Your task to perform on an android device: change text size in settings app Image 0: 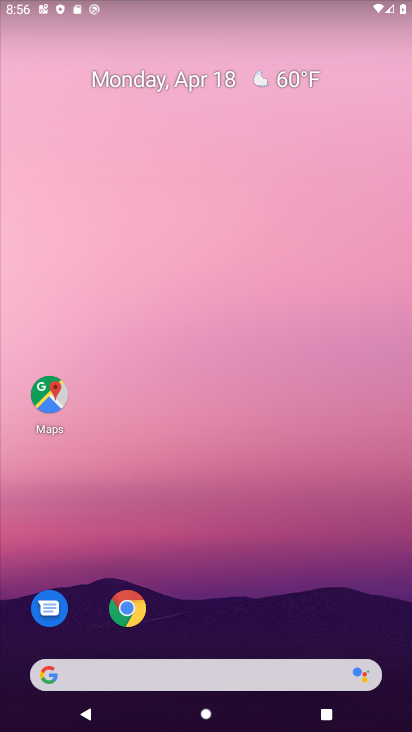
Step 0: click (283, 178)
Your task to perform on an android device: change text size in settings app Image 1: 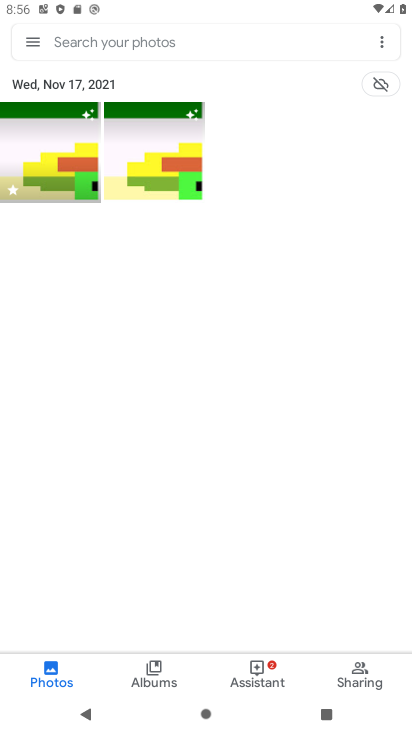
Step 1: press home button
Your task to perform on an android device: change text size in settings app Image 2: 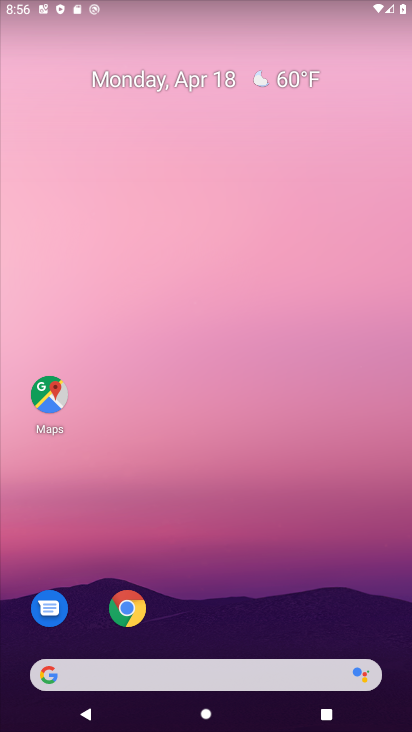
Step 2: drag from (215, 598) to (290, 154)
Your task to perform on an android device: change text size in settings app Image 3: 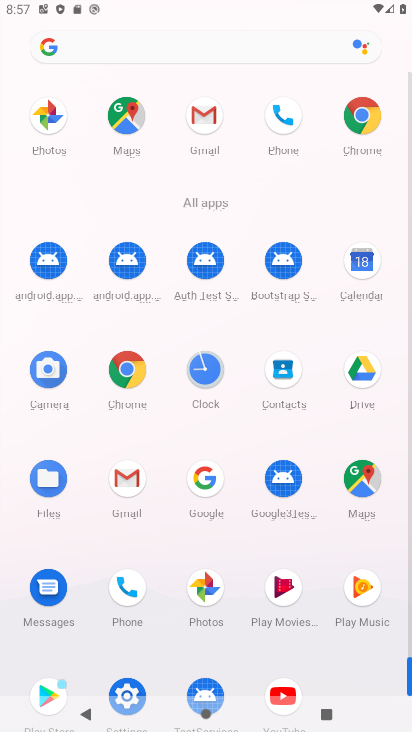
Step 3: click (124, 678)
Your task to perform on an android device: change text size in settings app Image 4: 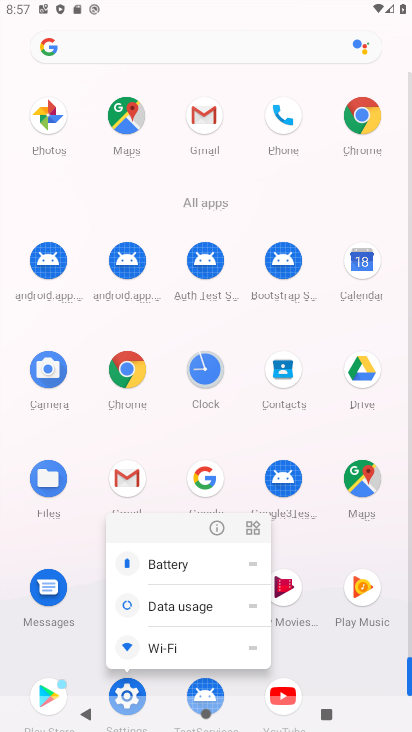
Step 4: click (217, 517)
Your task to perform on an android device: change text size in settings app Image 5: 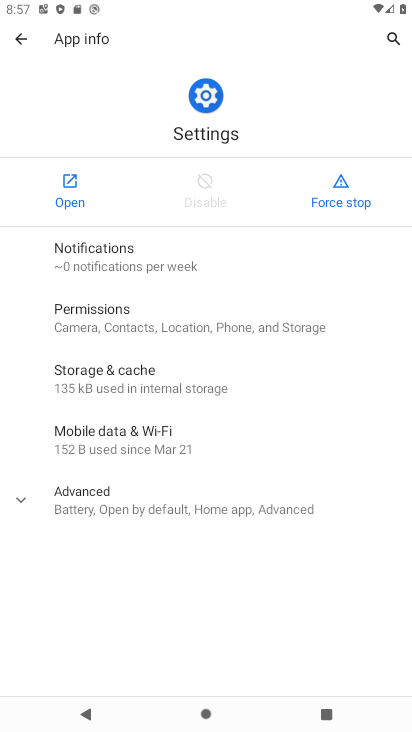
Step 5: click (52, 182)
Your task to perform on an android device: change text size in settings app Image 6: 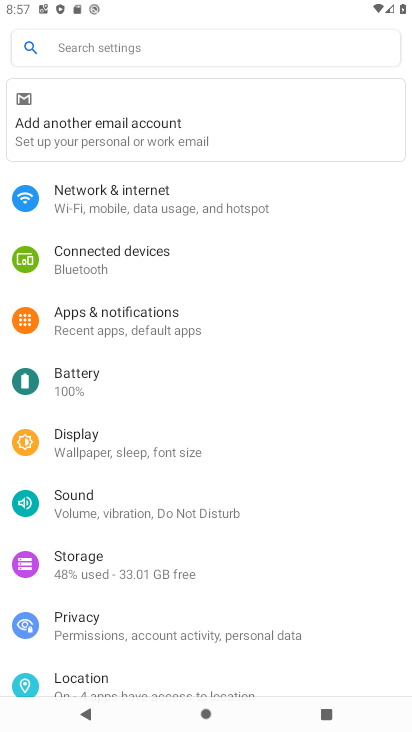
Step 6: click (107, 439)
Your task to perform on an android device: change text size in settings app Image 7: 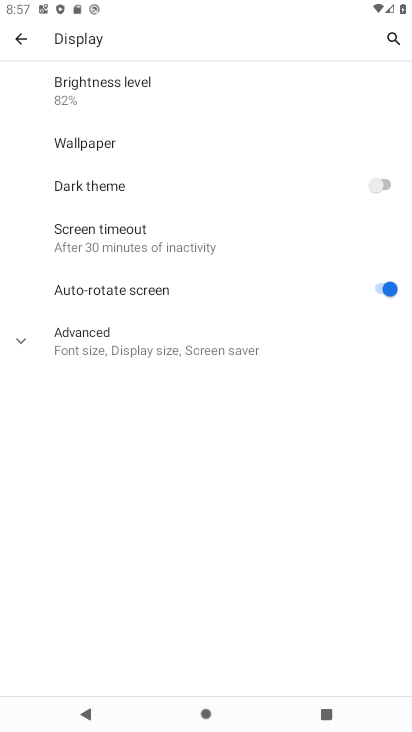
Step 7: click (158, 342)
Your task to perform on an android device: change text size in settings app Image 8: 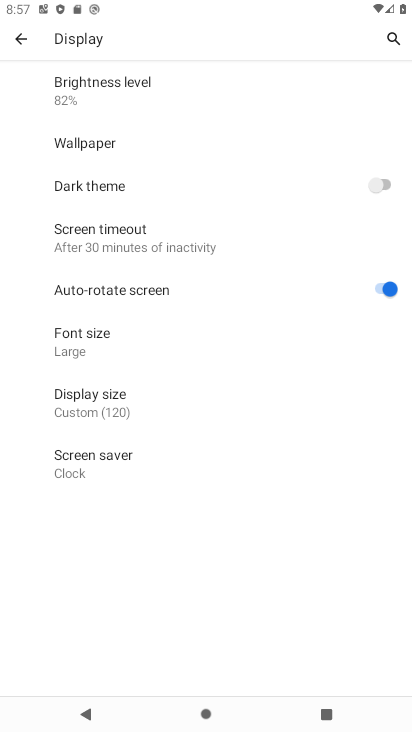
Step 8: click (136, 335)
Your task to perform on an android device: change text size in settings app Image 9: 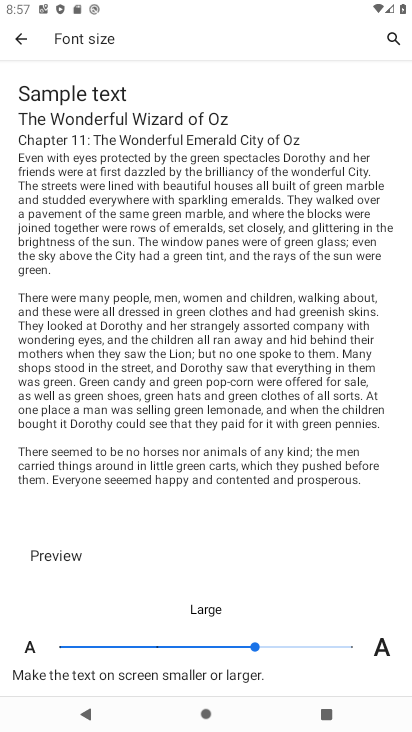
Step 9: click (327, 645)
Your task to perform on an android device: change text size in settings app Image 10: 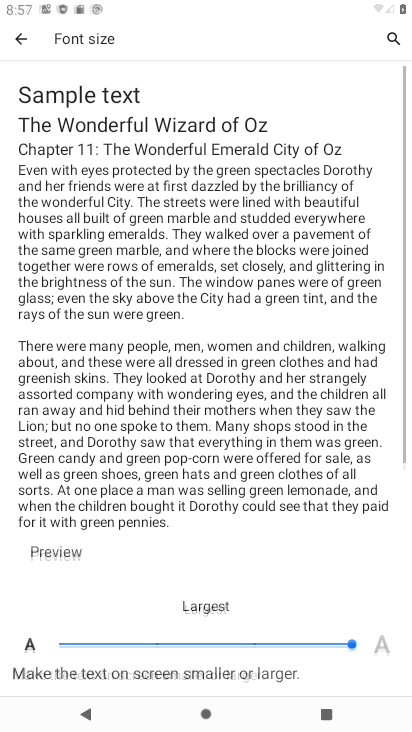
Step 10: click (203, 650)
Your task to perform on an android device: change text size in settings app Image 11: 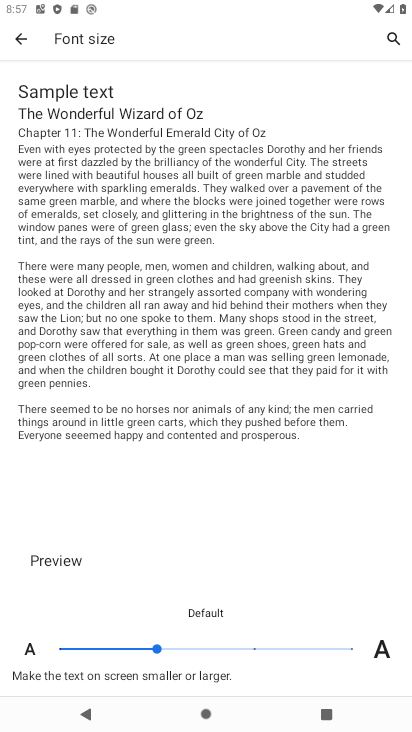
Step 11: task complete